Your task to perform on an android device: Turn off the flashlight Image 0: 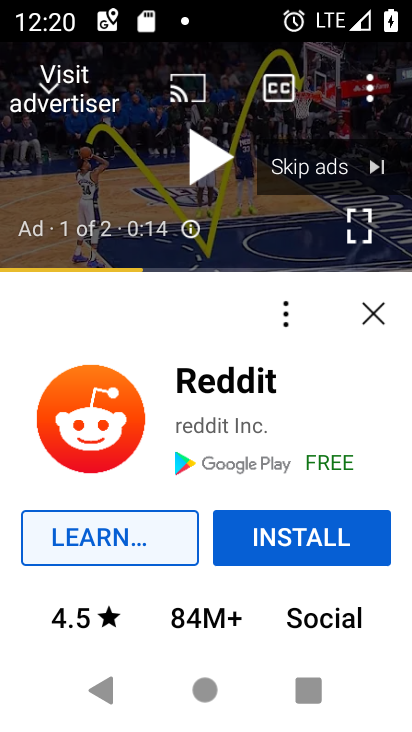
Step 0: click (371, 316)
Your task to perform on an android device: Turn off the flashlight Image 1: 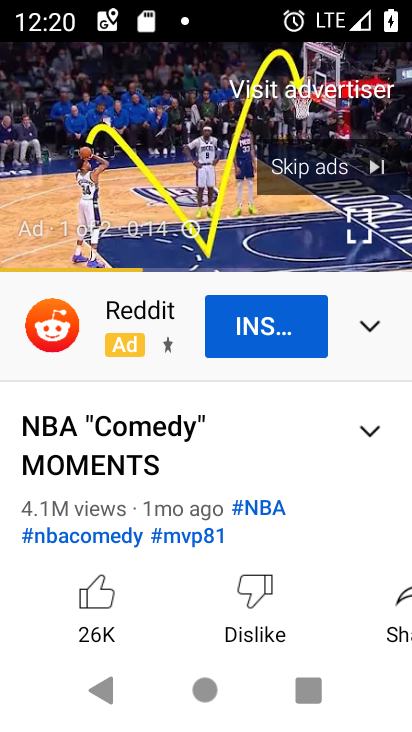
Step 1: task complete